Your task to perform on an android device: change text size in settings app Image 0: 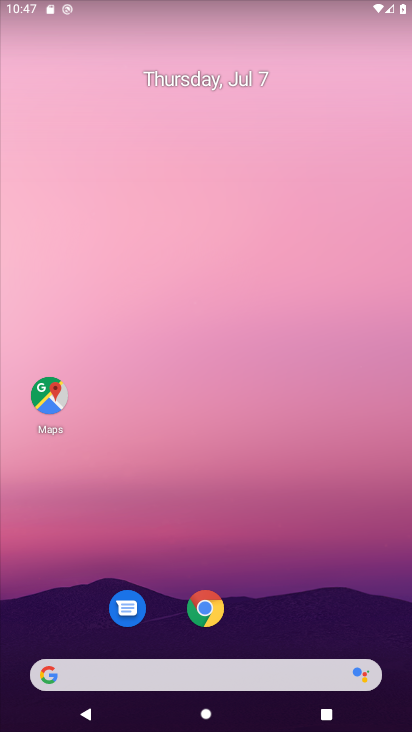
Step 0: drag from (179, 663) to (109, 119)
Your task to perform on an android device: change text size in settings app Image 1: 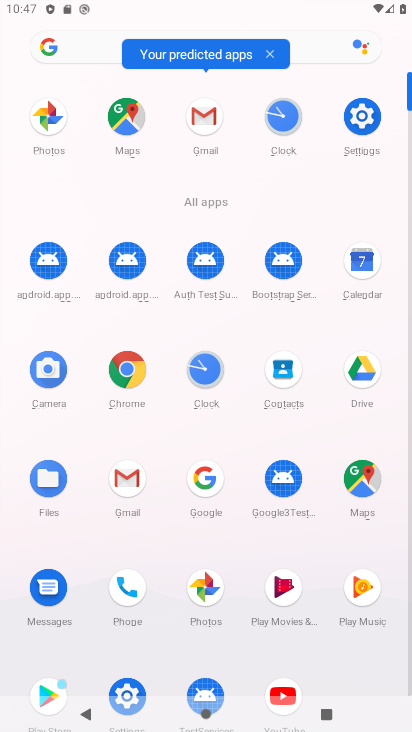
Step 1: click (368, 121)
Your task to perform on an android device: change text size in settings app Image 2: 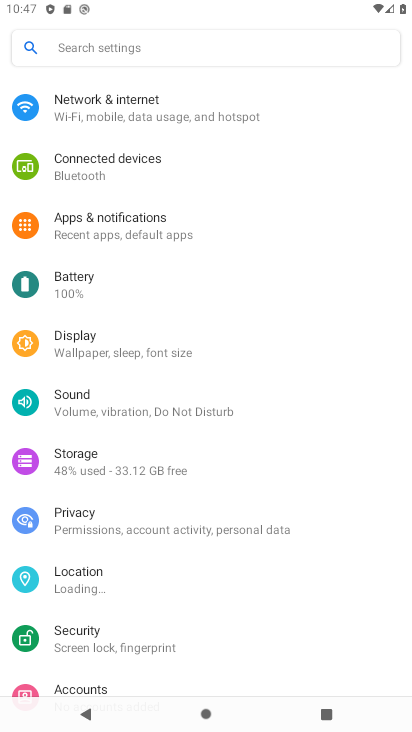
Step 2: click (123, 351)
Your task to perform on an android device: change text size in settings app Image 3: 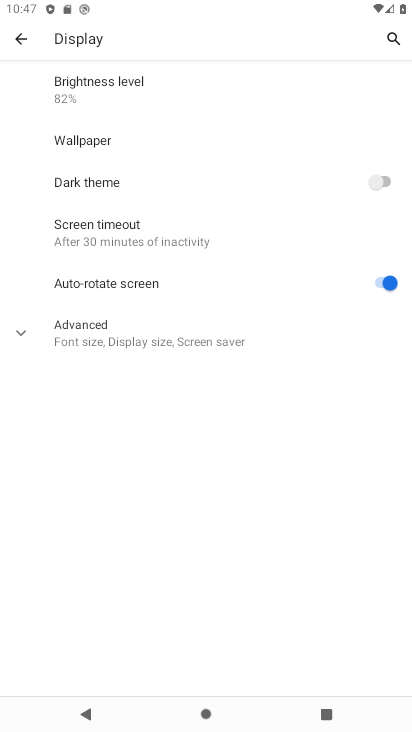
Step 3: click (175, 323)
Your task to perform on an android device: change text size in settings app Image 4: 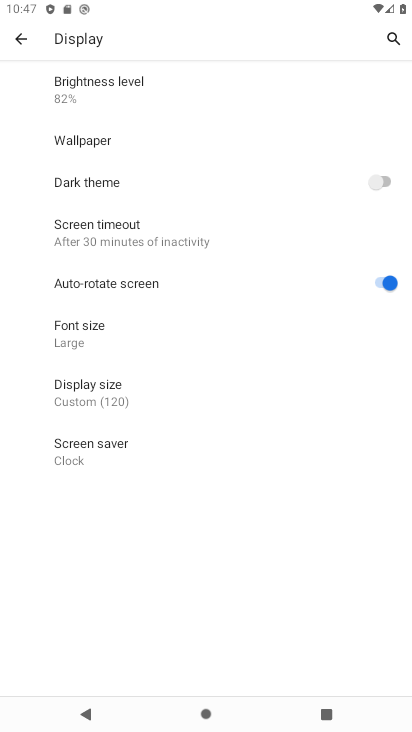
Step 4: click (159, 343)
Your task to perform on an android device: change text size in settings app Image 5: 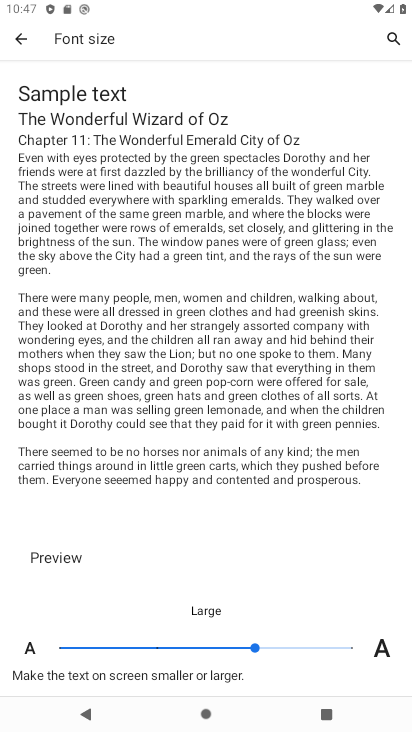
Step 5: task complete